Your task to perform on an android device: Open settings on Google Maps Image 0: 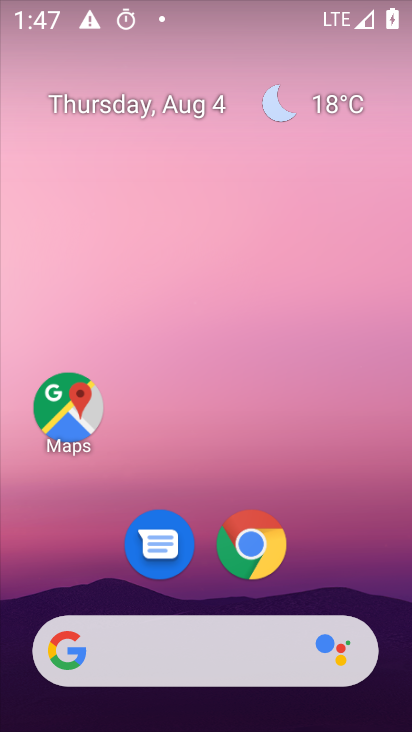
Step 0: click (58, 407)
Your task to perform on an android device: Open settings on Google Maps Image 1: 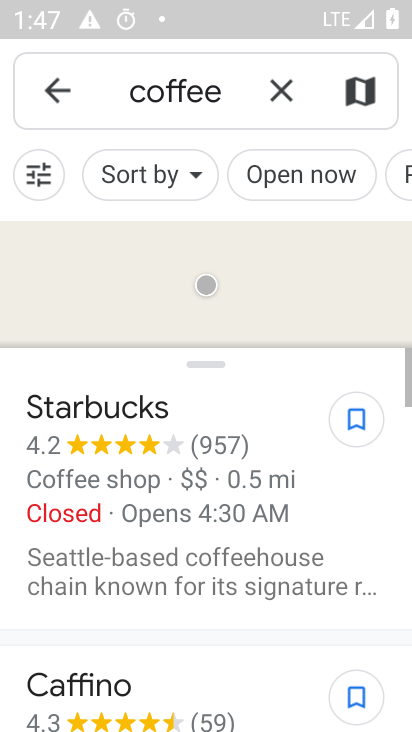
Step 1: click (44, 96)
Your task to perform on an android device: Open settings on Google Maps Image 2: 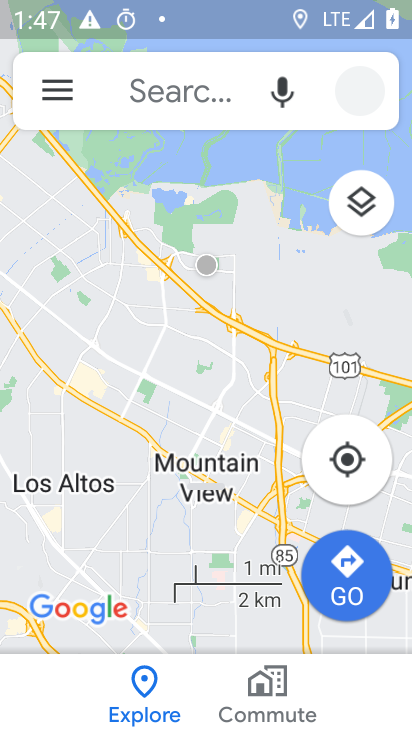
Step 2: click (44, 83)
Your task to perform on an android device: Open settings on Google Maps Image 3: 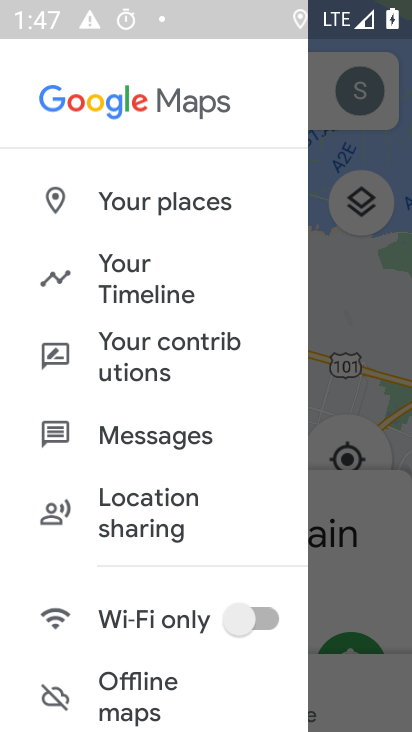
Step 3: drag from (239, 656) to (198, 326)
Your task to perform on an android device: Open settings on Google Maps Image 4: 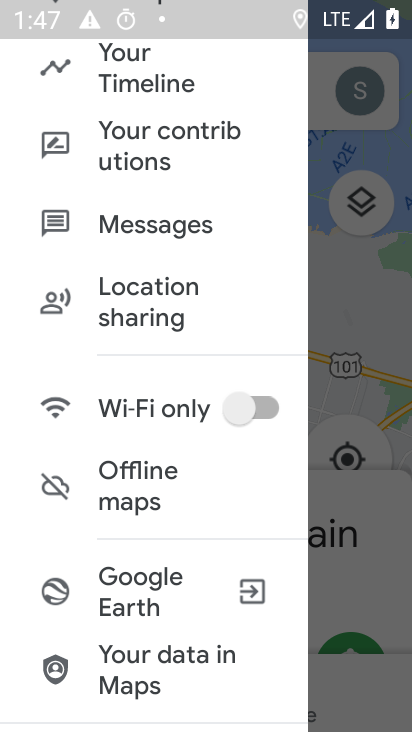
Step 4: drag from (221, 682) to (216, 333)
Your task to perform on an android device: Open settings on Google Maps Image 5: 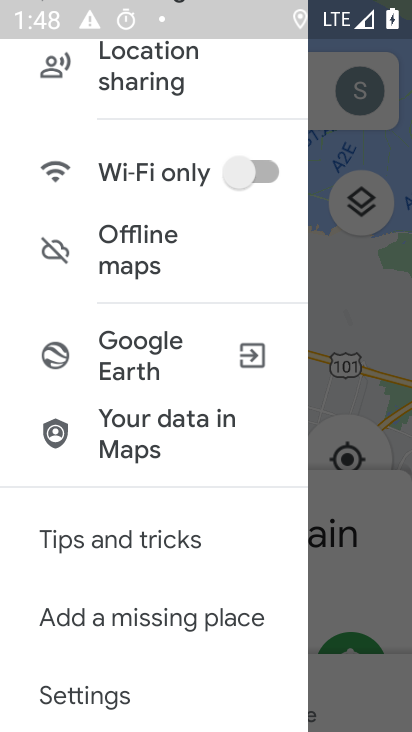
Step 5: drag from (204, 678) to (184, 316)
Your task to perform on an android device: Open settings on Google Maps Image 6: 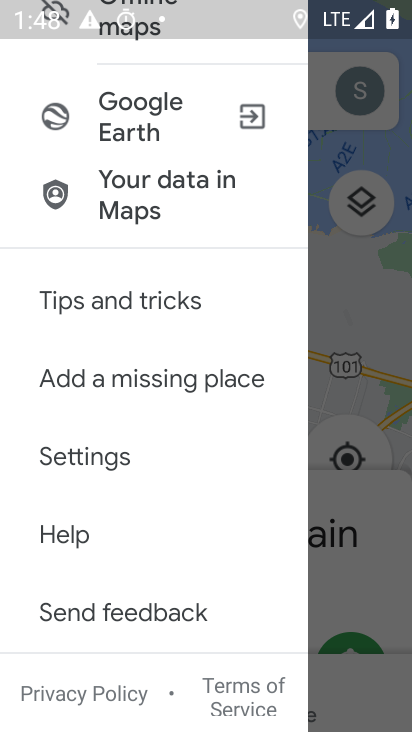
Step 6: click (82, 509)
Your task to perform on an android device: Open settings on Google Maps Image 7: 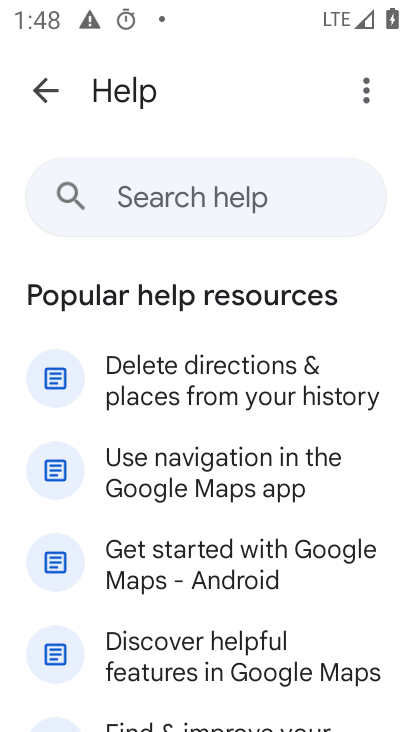
Step 7: task complete